Your task to perform on an android device: Go to ESPN.com Image 0: 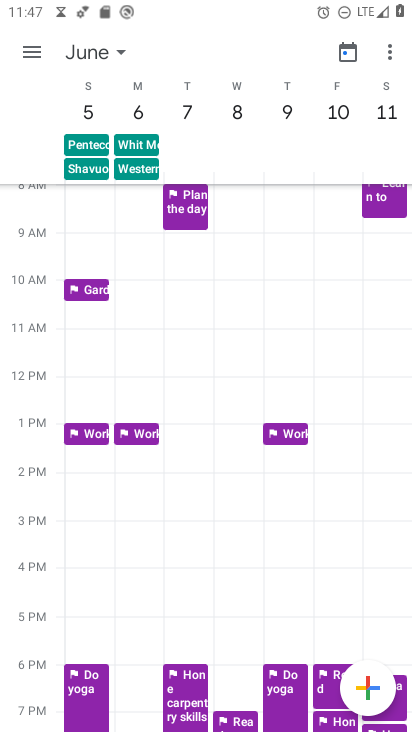
Step 0: press home button
Your task to perform on an android device: Go to ESPN.com Image 1: 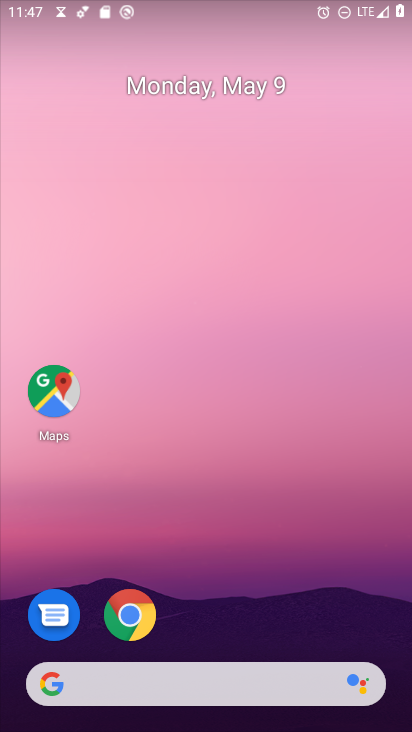
Step 1: click (126, 615)
Your task to perform on an android device: Go to ESPN.com Image 2: 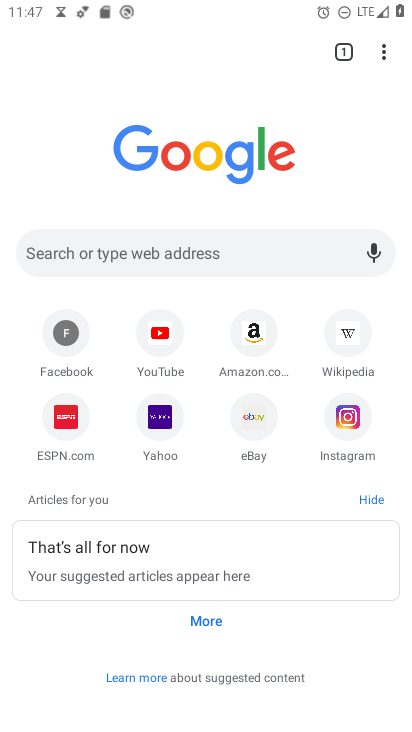
Step 2: click (236, 261)
Your task to perform on an android device: Go to ESPN.com Image 3: 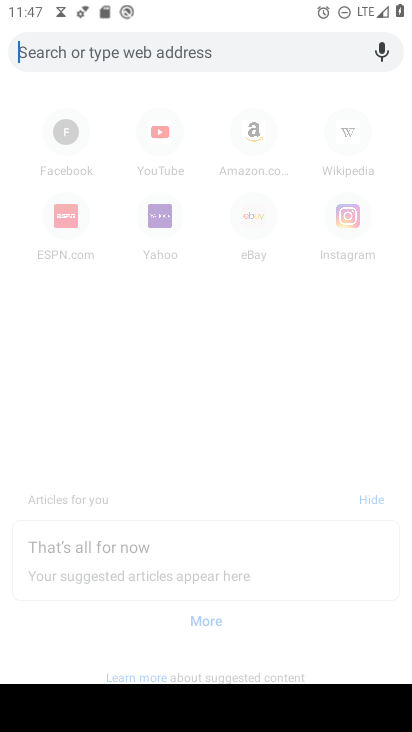
Step 3: type "ESPN.com"
Your task to perform on an android device: Go to ESPN.com Image 4: 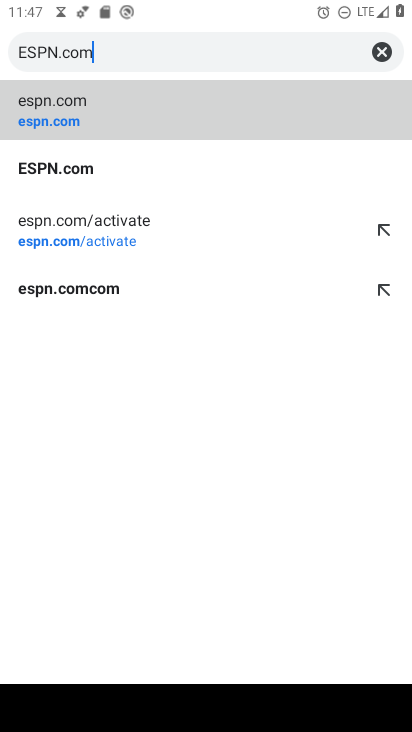
Step 4: click (98, 116)
Your task to perform on an android device: Go to ESPN.com Image 5: 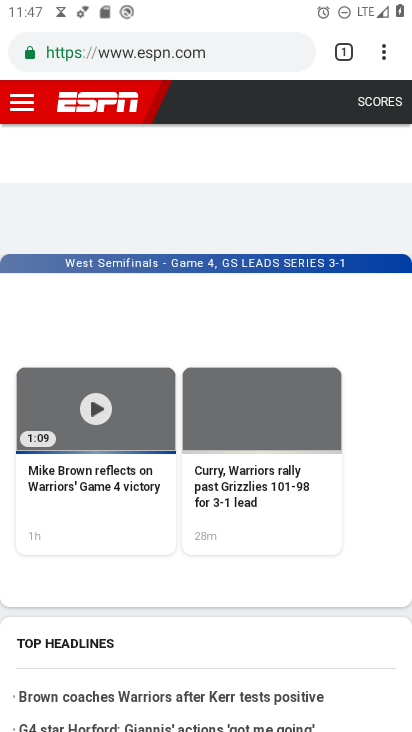
Step 5: task complete